Your task to perform on an android device: Open settings on Google Maps Image 0: 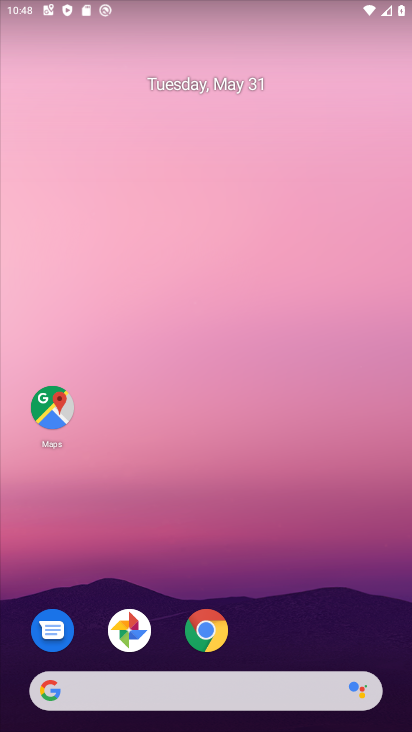
Step 0: drag from (299, 660) to (302, 188)
Your task to perform on an android device: Open settings on Google Maps Image 1: 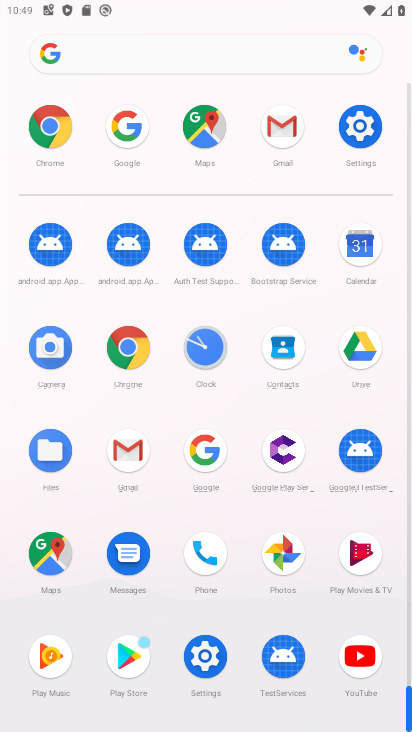
Step 1: click (46, 546)
Your task to perform on an android device: Open settings on Google Maps Image 2: 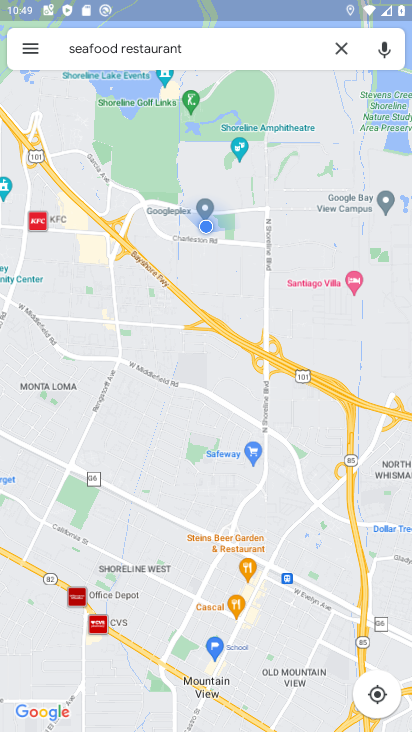
Step 2: click (335, 44)
Your task to perform on an android device: Open settings on Google Maps Image 3: 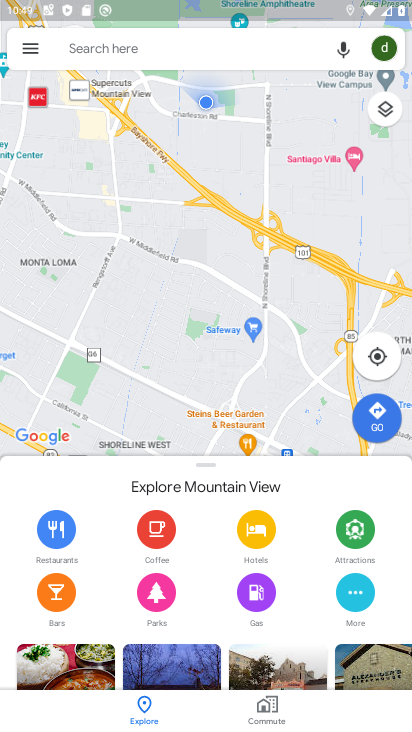
Step 3: task complete